Your task to perform on an android device: Open ESPN.com Image 0: 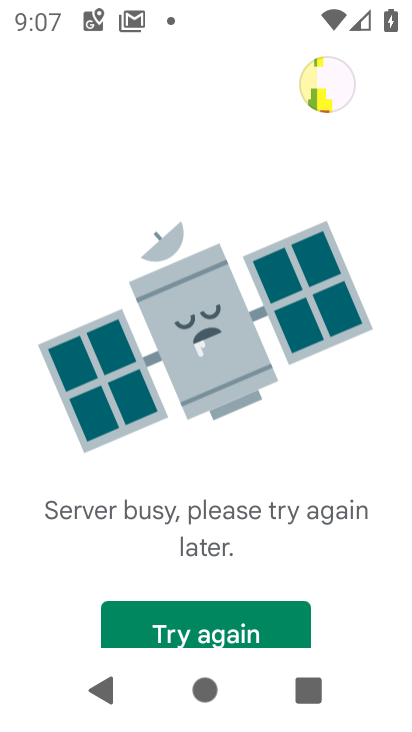
Step 0: press home button
Your task to perform on an android device: Open ESPN.com Image 1: 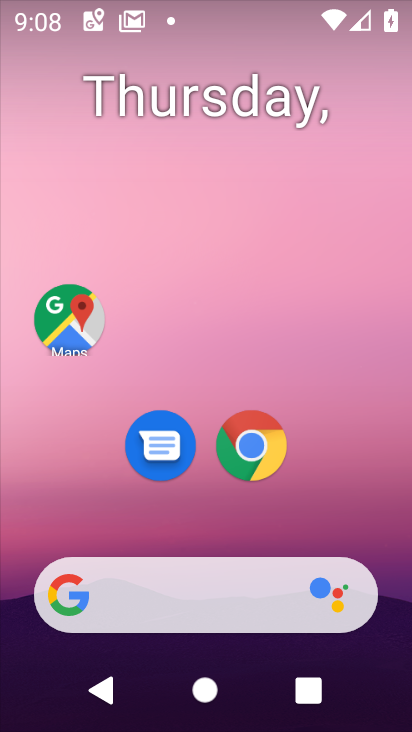
Step 1: click (246, 453)
Your task to perform on an android device: Open ESPN.com Image 2: 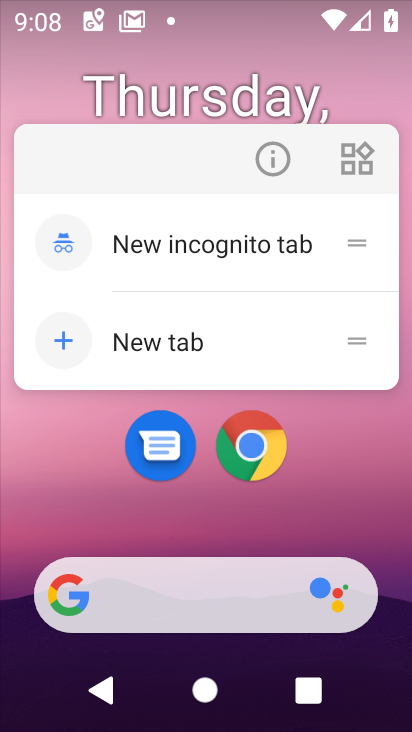
Step 2: click (243, 474)
Your task to perform on an android device: Open ESPN.com Image 3: 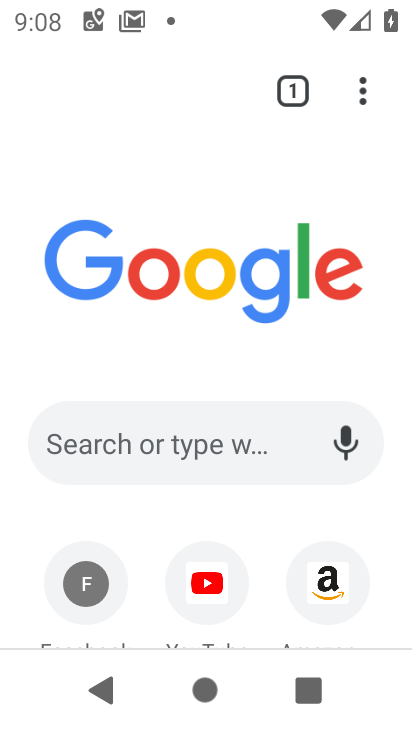
Step 3: drag from (261, 551) to (245, 216)
Your task to perform on an android device: Open ESPN.com Image 4: 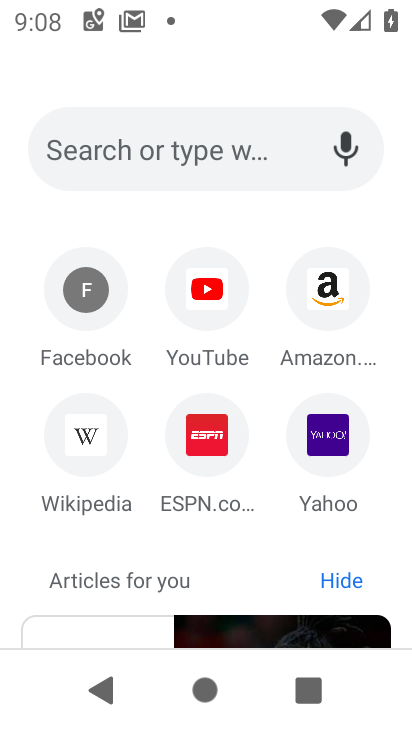
Step 4: click (225, 456)
Your task to perform on an android device: Open ESPN.com Image 5: 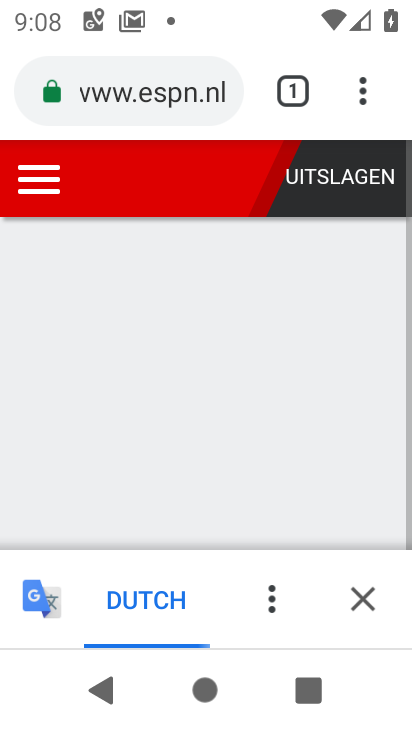
Step 5: task complete